Your task to perform on an android device: make emails show in primary in the gmail app Image 0: 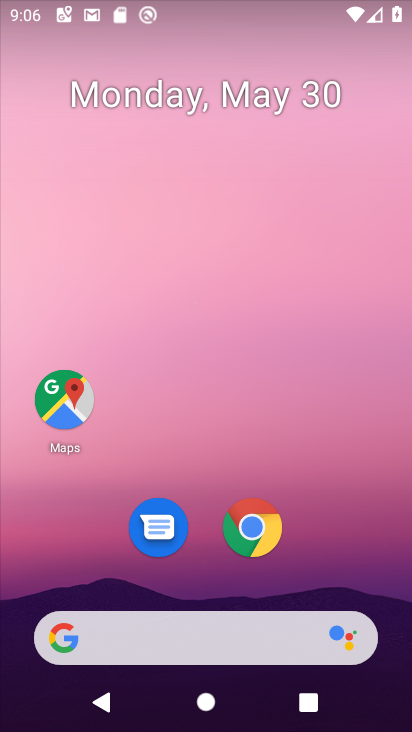
Step 0: drag from (85, 546) to (153, 135)
Your task to perform on an android device: make emails show in primary in the gmail app Image 1: 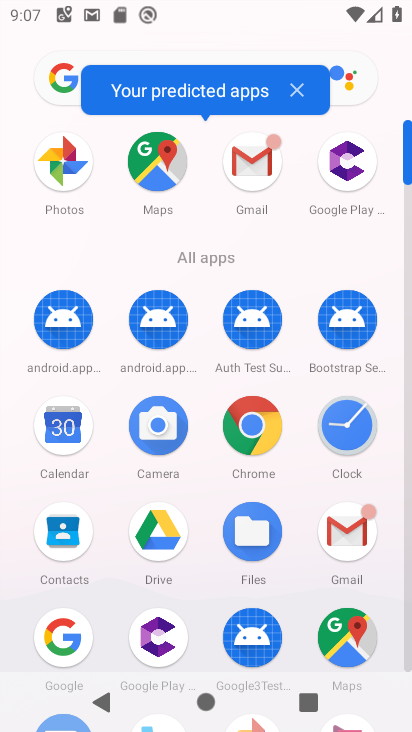
Step 1: click (337, 532)
Your task to perform on an android device: make emails show in primary in the gmail app Image 2: 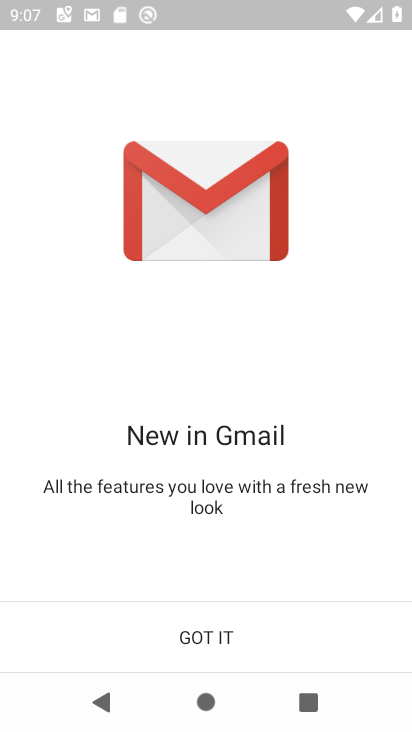
Step 2: click (228, 636)
Your task to perform on an android device: make emails show in primary in the gmail app Image 3: 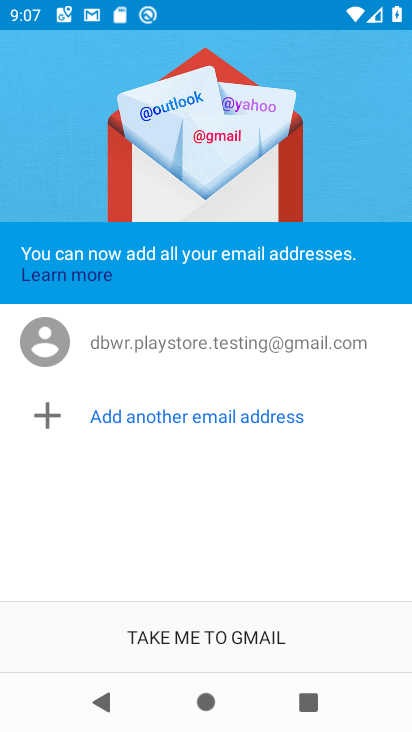
Step 3: click (228, 636)
Your task to perform on an android device: make emails show in primary in the gmail app Image 4: 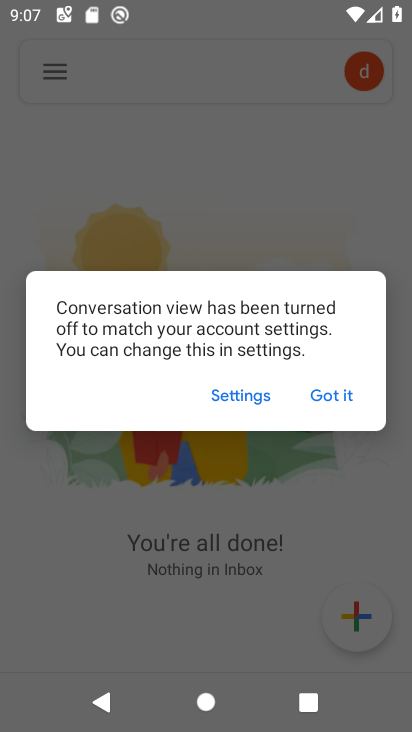
Step 4: click (356, 401)
Your task to perform on an android device: make emails show in primary in the gmail app Image 5: 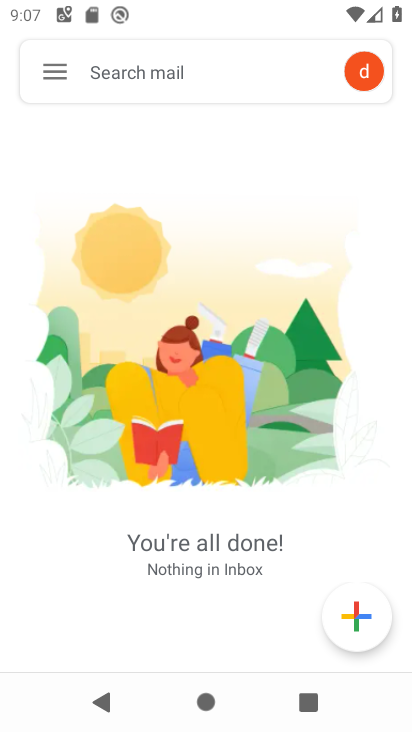
Step 5: click (58, 78)
Your task to perform on an android device: make emails show in primary in the gmail app Image 6: 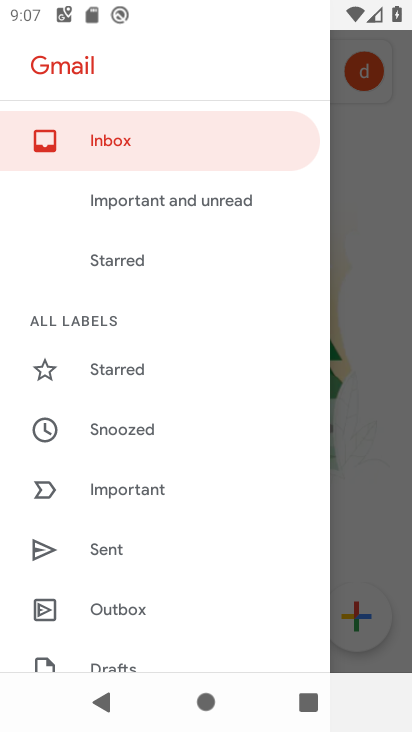
Step 6: drag from (220, 574) to (311, 128)
Your task to perform on an android device: make emails show in primary in the gmail app Image 7: 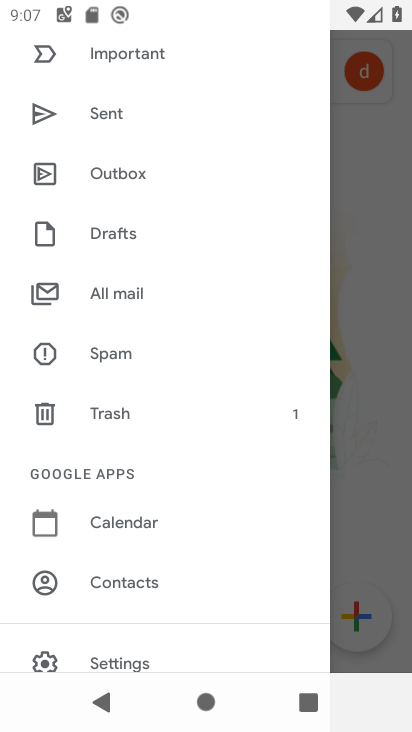
Step 7: drag from (155, 615) to (250, 228)
Your task to perform on an android device: make emails show in primary in the gmail app Image 8: 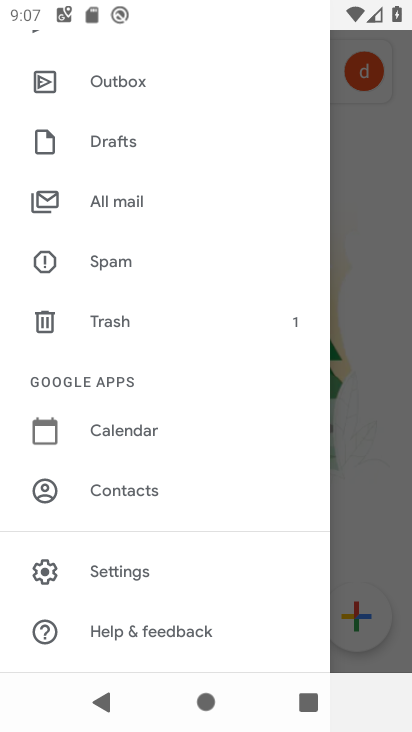
Step 8: click (187, 577)
Your task to perform on an android device: make emails show in primary in the gmail app Image 9: 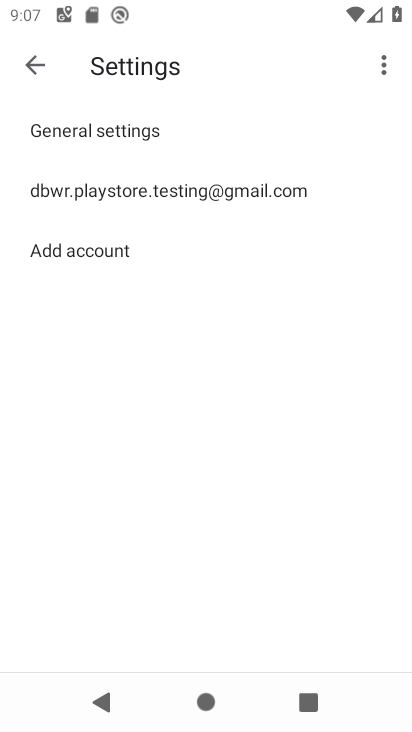
Step 9: click (292, 202)
Your task to perform on an android device: make emails show in primary in the gmail app Image 10: 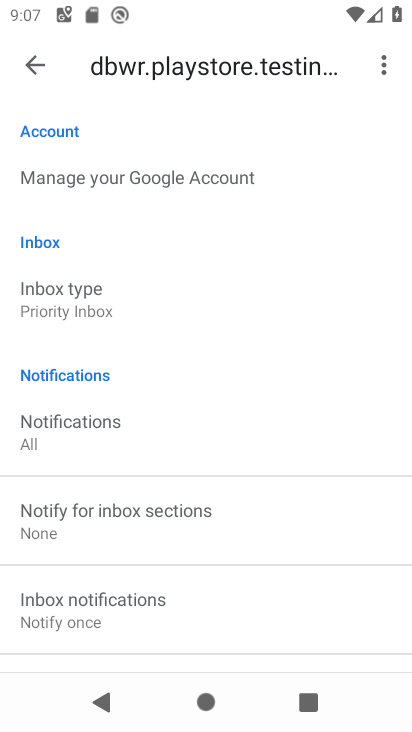
Step 10: drag from (236, 635) to (264, 399)
Your task to perform on an android device: make emails show in primary in the gmail app Image 11: 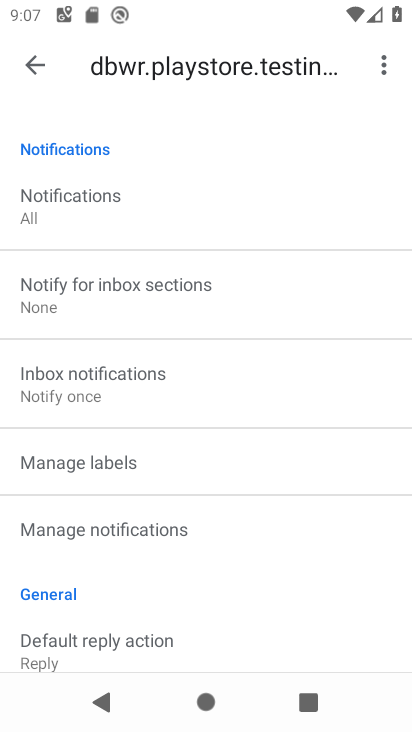
Step 11: drag from (206, 581) to (269, 206)
Your task to perform on an android device: make emails show in primary in the gmail app Image 12: 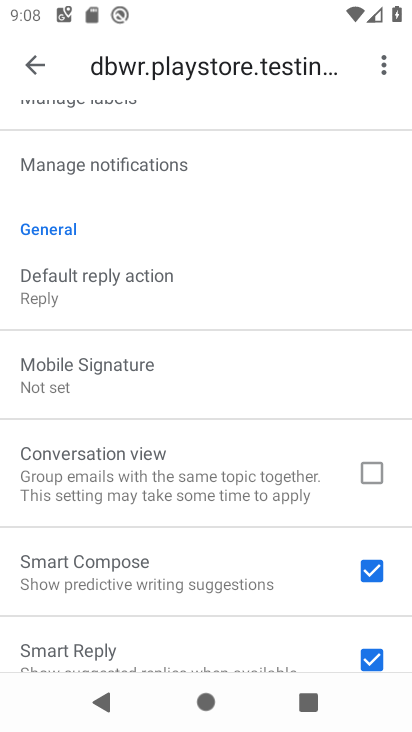
Step 12: drag from (191, 614) to (211, 653)
Your task to perform on an android device: make emails show in primary in the gmail app Image 13: 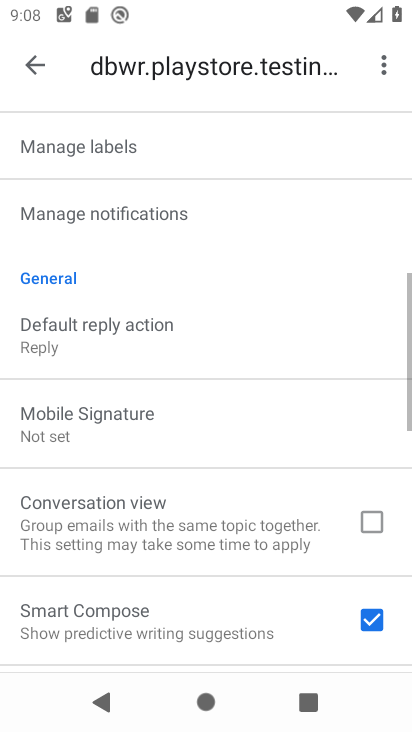
Step 13: drag from (220, 151) to (205, 680)
Your task to perform on an android device: make emails show in primary in the gmail app Image 14: 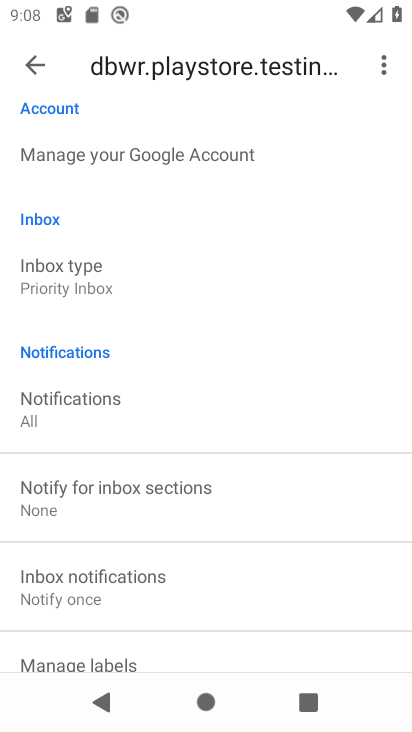
Step 14: click (155, 290)
Your task to perform on an android device: make emails show in primary in the gmail app Image 15: 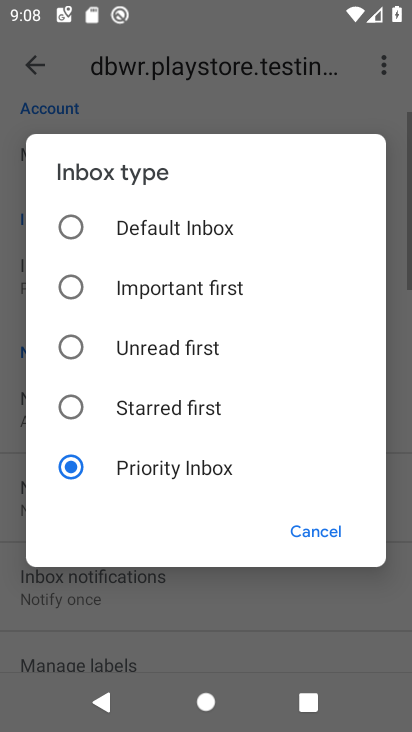
Step 15: click (184, 224)
Your task to perform on an android device: make emails show in primary in the gmail app Image 16: 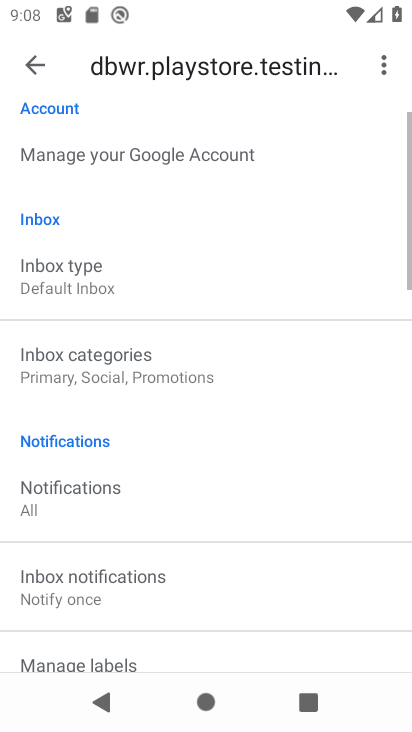
Step 16: click (190, 373)
Your task to perform on an android device: make emails show in primary in the gmail app Image 17: 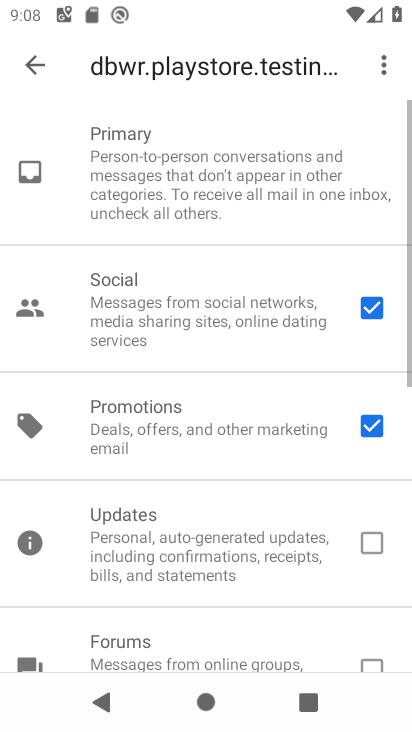
Step 17: drag from (209, 640) to (233, 448)
Your task to perform on an android device: make emails show in primary in the gmail app Image 18: 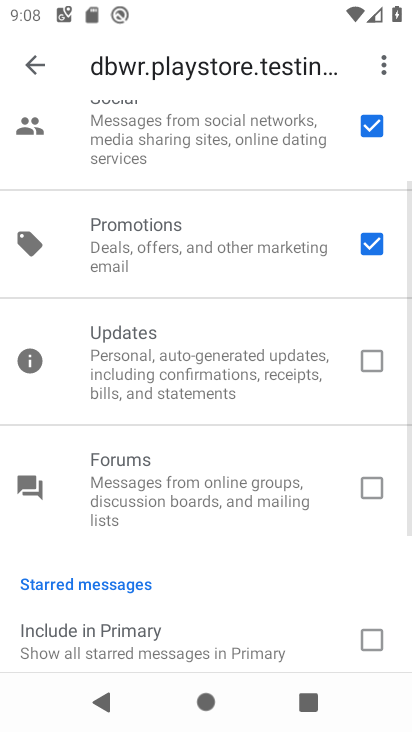
Step 18: click (376, 349)
Your task to perform on an android device: make emails show in primary in the gmail app Image 19: 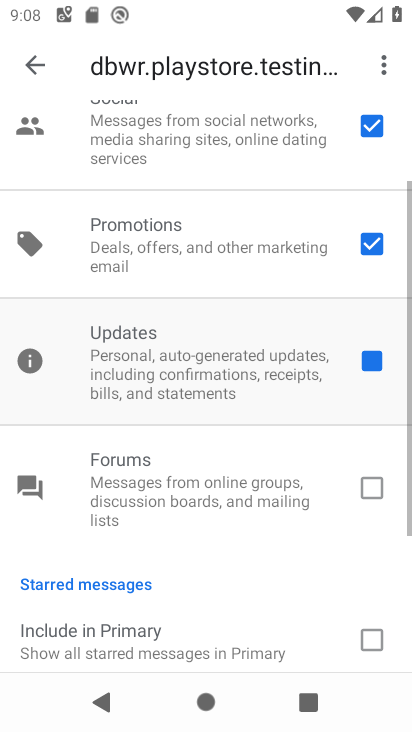
Step 19: click (373, 493)
Your task to perform on an android device: make emails show in primary in the gmail app Image 20: 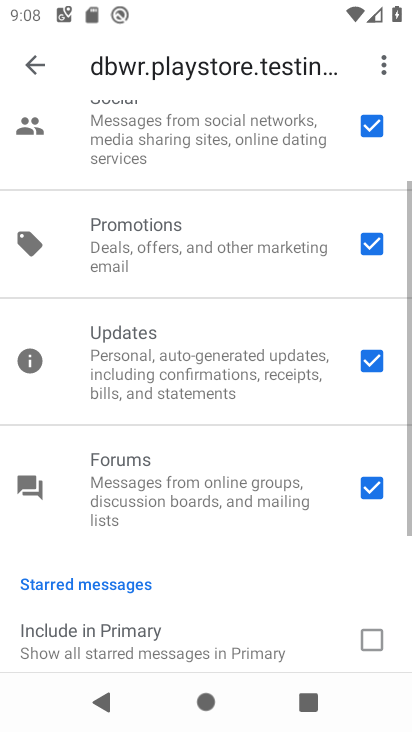
Step 20: click (372, 630)
Your task to perform on an android device: make emails show in primary in the gmail app Image 21: 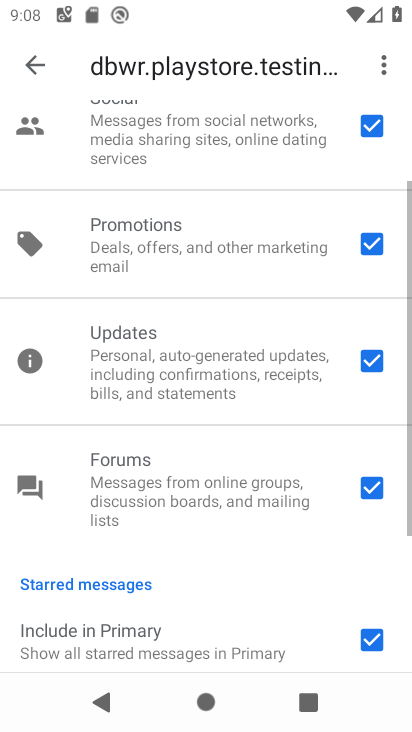
Step 21: task complete